Your task to perform on an android device: open chrome privacy settings Image 0: 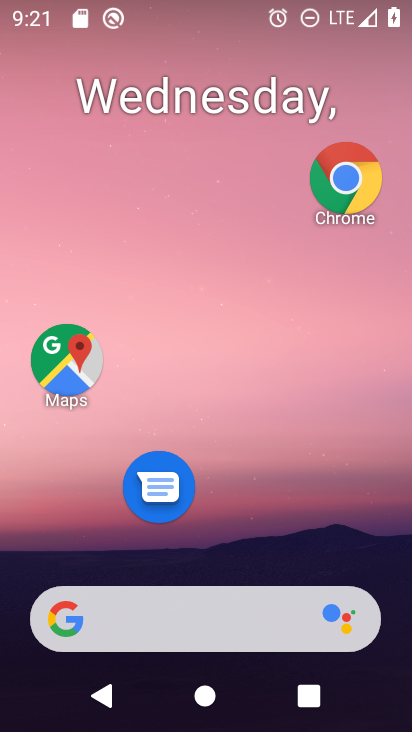
Step 0: drag from (183, 700) to (243, 2)
Your task to perform on an android device: open chrome privacy settings Image 1: 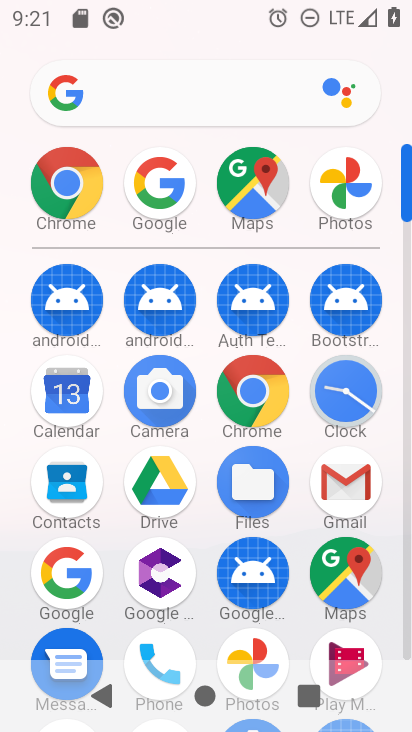
Step 1: click (230, 410)
Your task to perform on an android device: open chrome privacy settings Image 2: 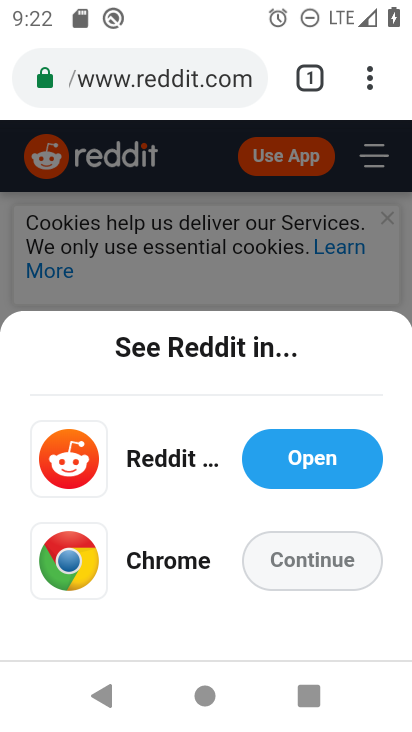
Step 2: click (379, 87)
Your task to perform on an android device: open chrome privacy settings Image 3: 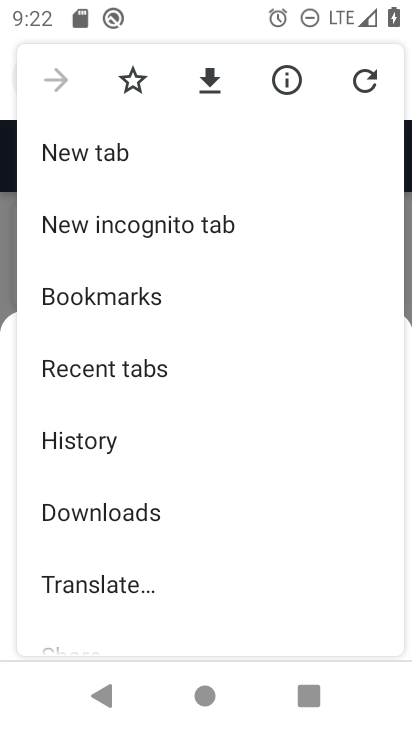
Step 3: drag from (125, 547) to (138, 196)
Your task to perform on an android device: open chrome privacy settings Image 4: 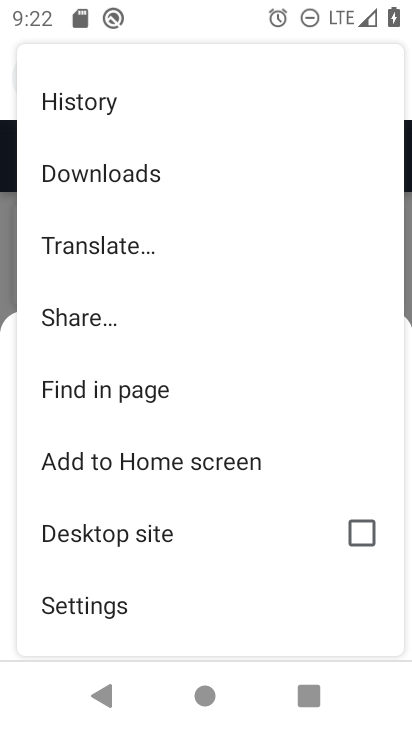
Step 4: click (103, 613)
Your task to perform on an android device: open chrome privacy settings Image 5: 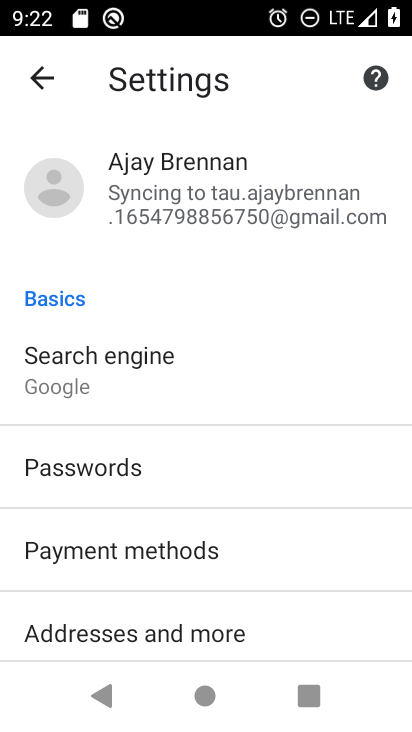
Step 5: drag from (118, 503) to (138, 340)
Your task to perform on an android device: open chrome privacy settings Image 6: 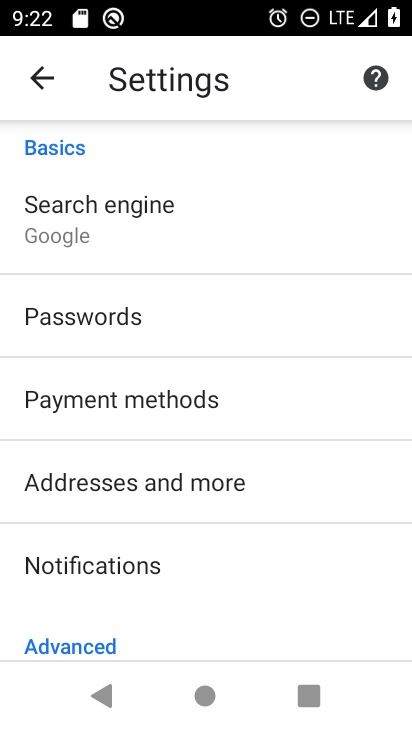
Step 6: drag from (134, 612) to (135, 322)
Your task to perform on an android device: open chrome privacy settings Image 7: 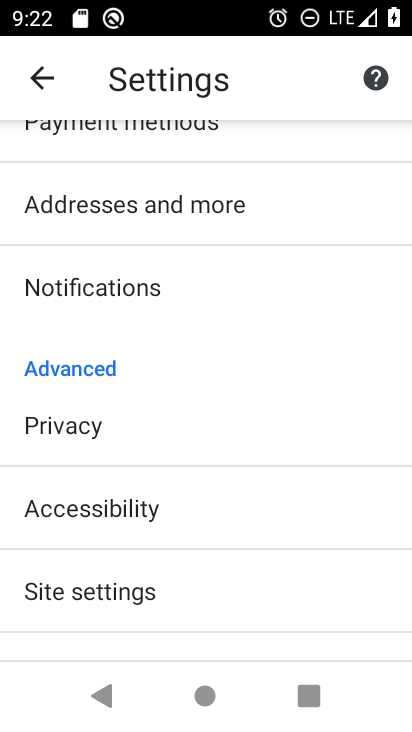
Step 7: click (85, 439)
Your task to perform on an android device: open chrome privacy settings Image 8: 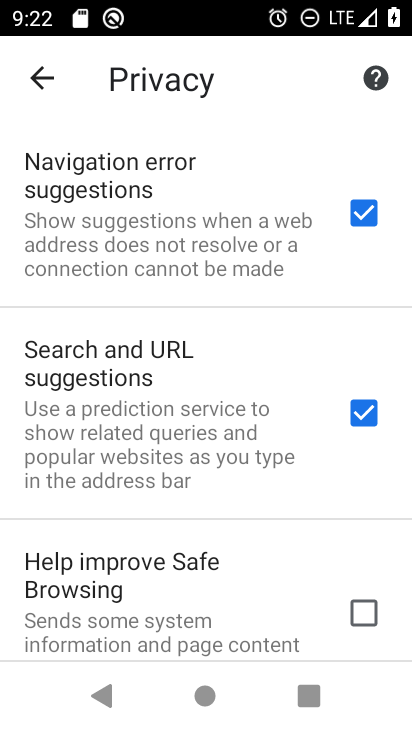
Step 8: task complete